Your task to perform on an android device: check battery use Image 0: 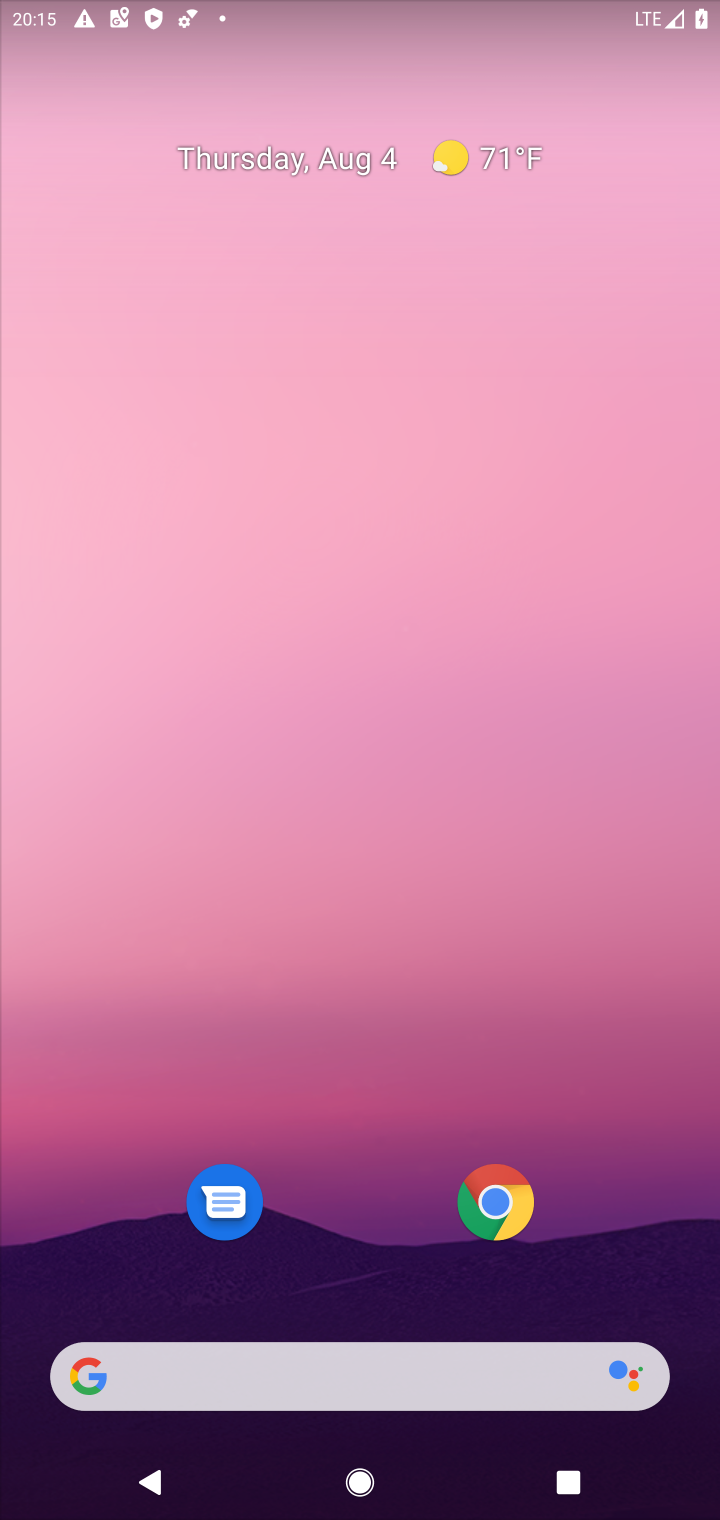
Step 0: click (201, 390)
Your task to perform on an android device: check battery use Image 1: 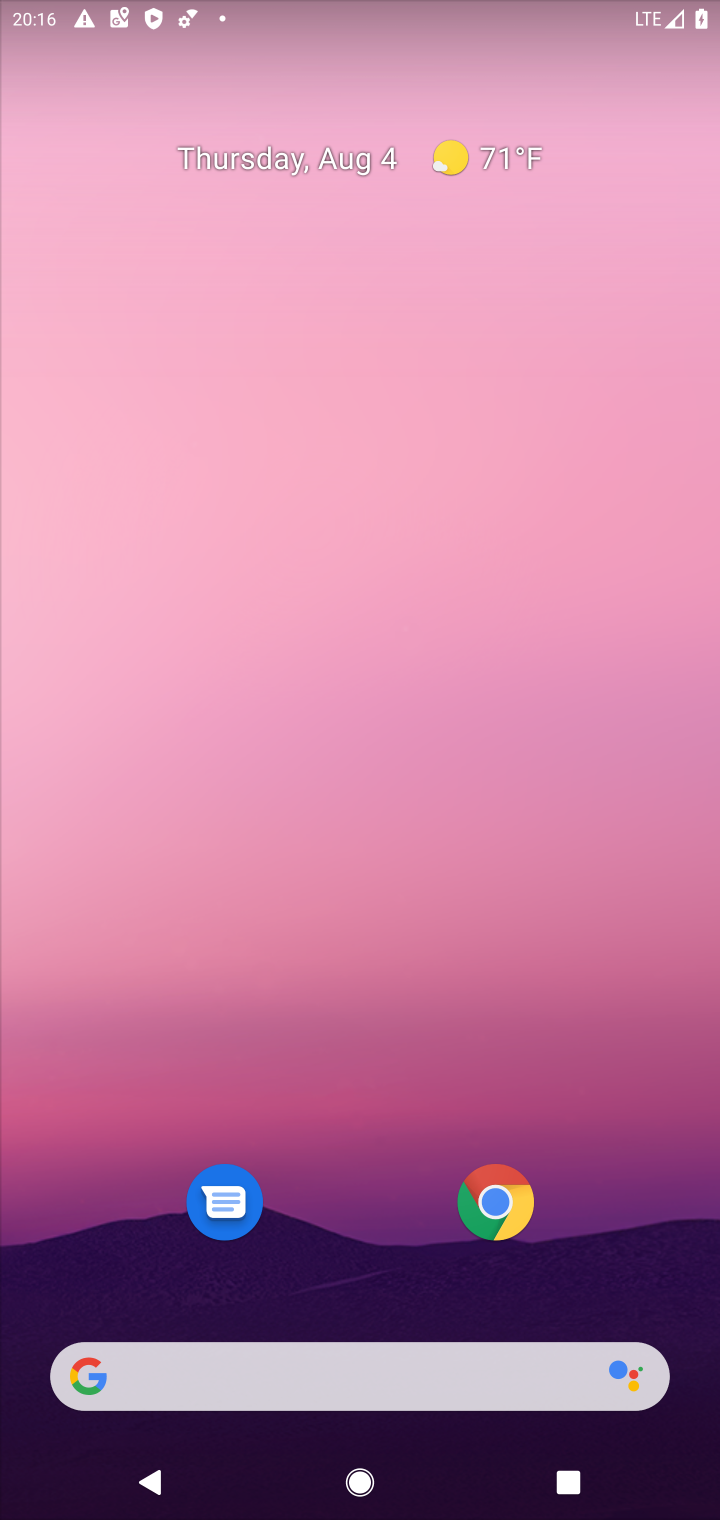
Step 1: drag from (390, 1256) to (392, 326)
Your task to perform on an android device: check battery use Image 2: 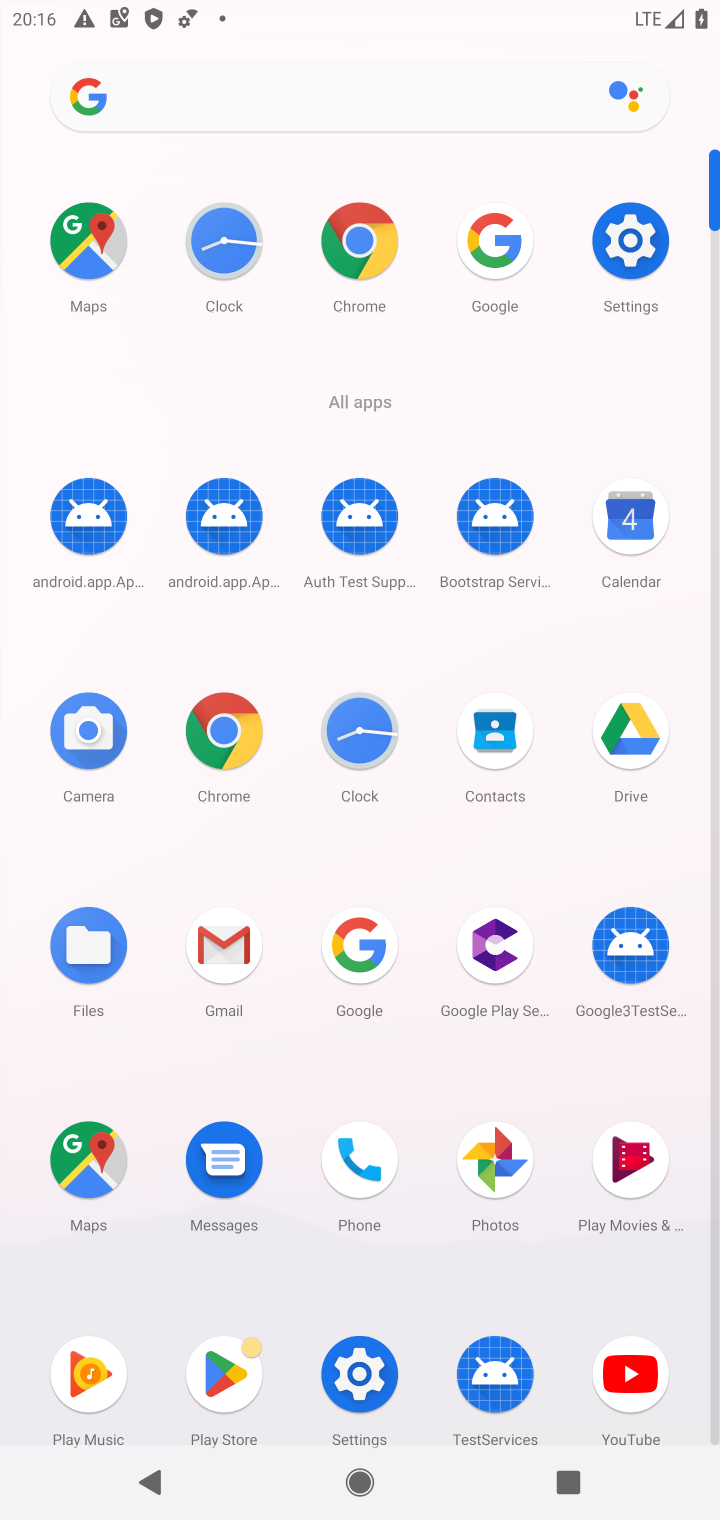
Step 2: click (633, 255)
Your task to perform on an android device: check battery use Image 3: 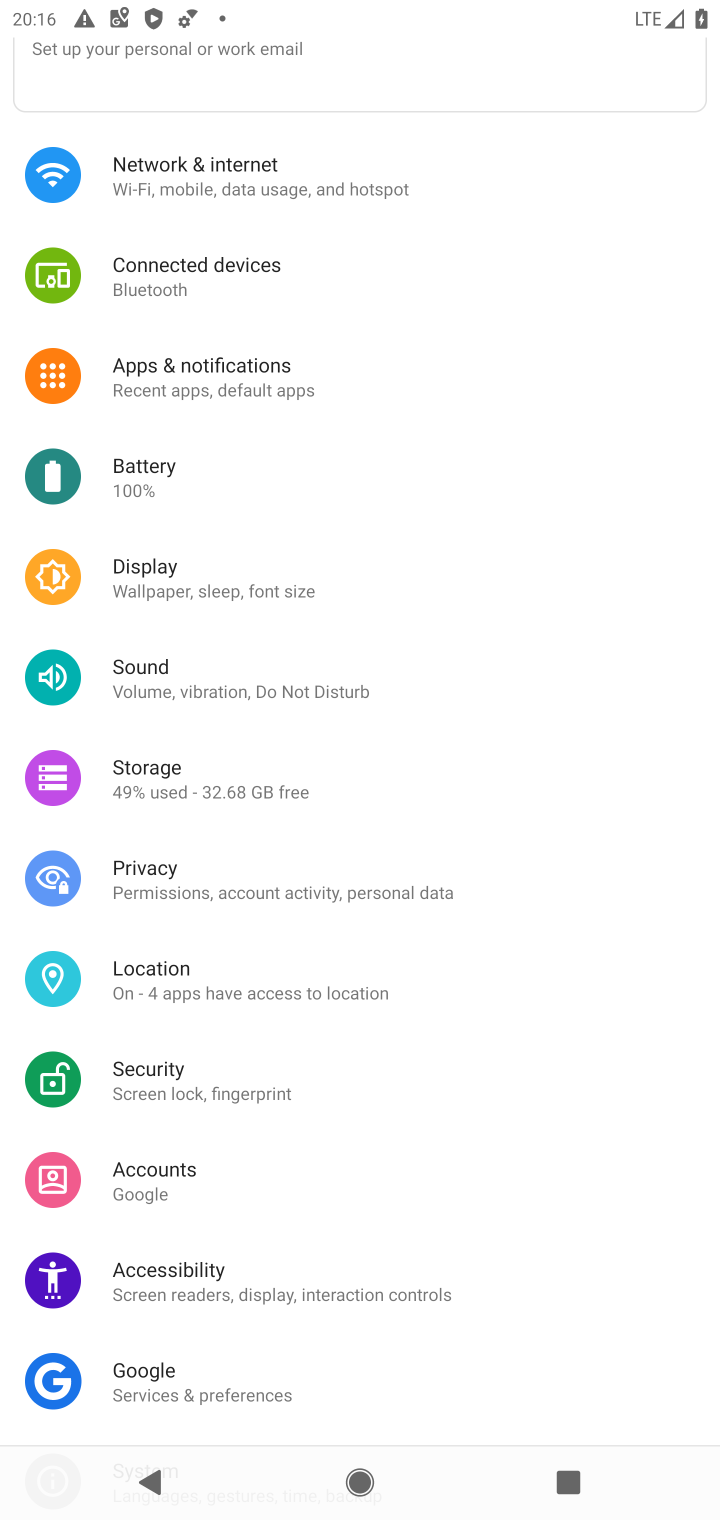
Step 3: click (297, 476)
Your task to perform on an android device: check battery use Image 4: 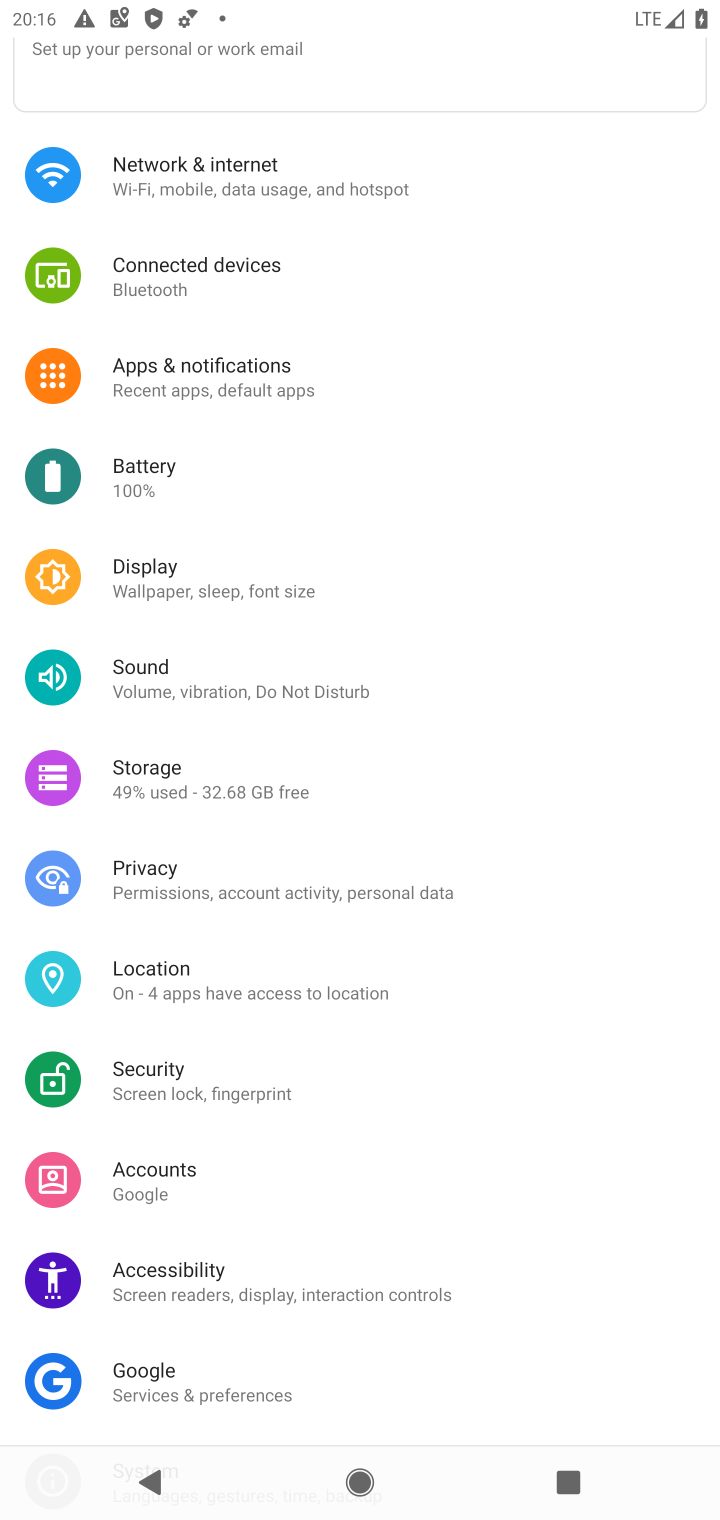
Step 4: click (297, 505)
Your task to perform on an android device: check battery use Image 5: 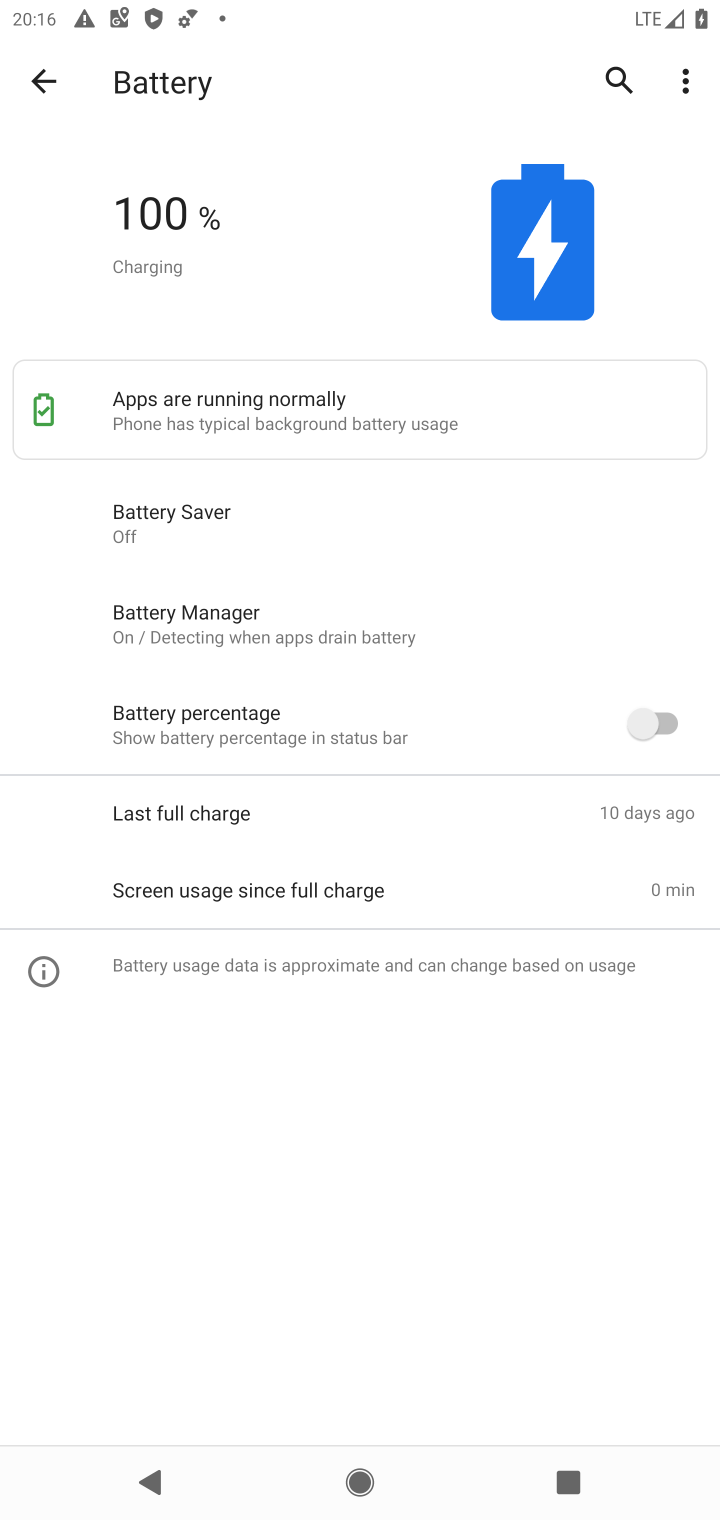
Step 5: click (686, 100)
Your task to perform on an android device: check battery use Image 6: 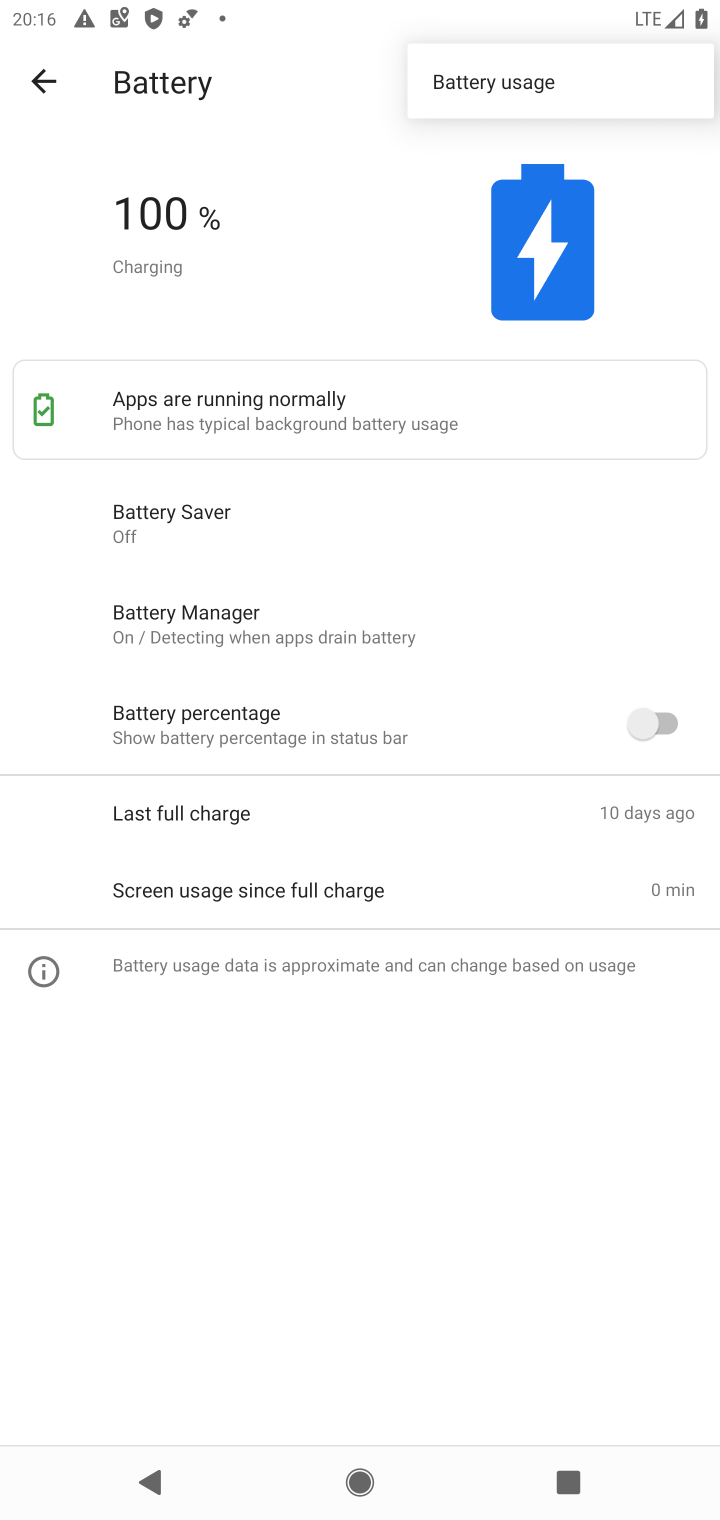
Step 6: click (521, 86)
Your task to perform on an android device: check battery use Image 7: 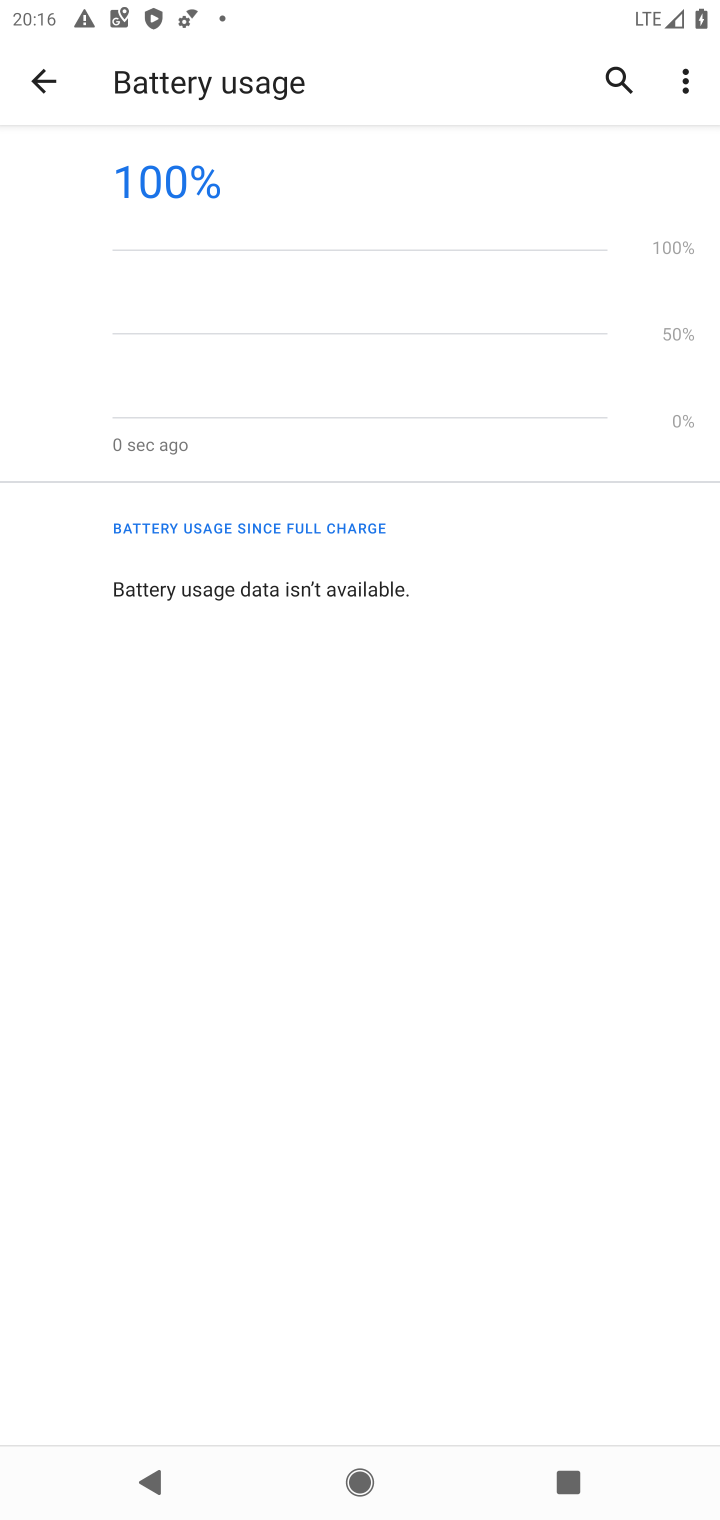
Step 7: task complete